Your task to perform on an android device: turn pop-ups off in chrome Image 0: 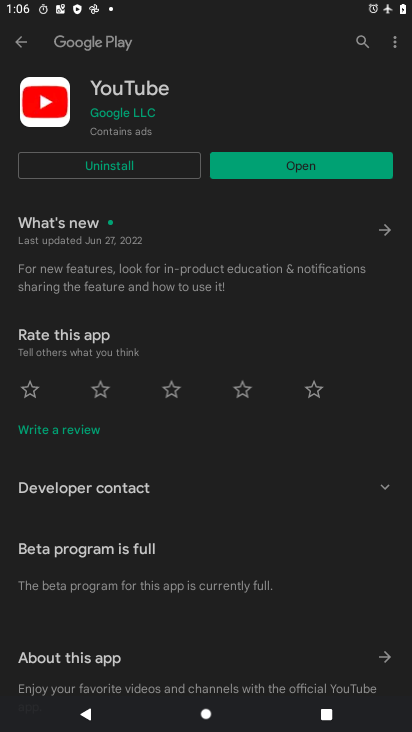
Step 0: press home button
Your task to perform on an android device: turn pop-ups off in chrome Image 1: 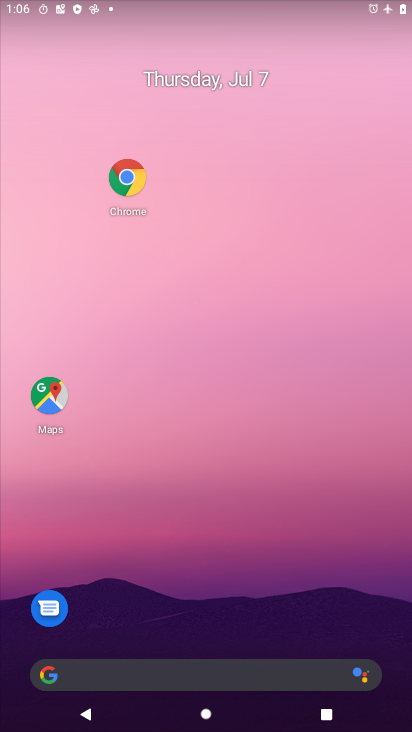
Step 1: drag from (152, 685) to (140, 345)
Your task to perform on an android device: turn pop-ups off in chrome Image 2: 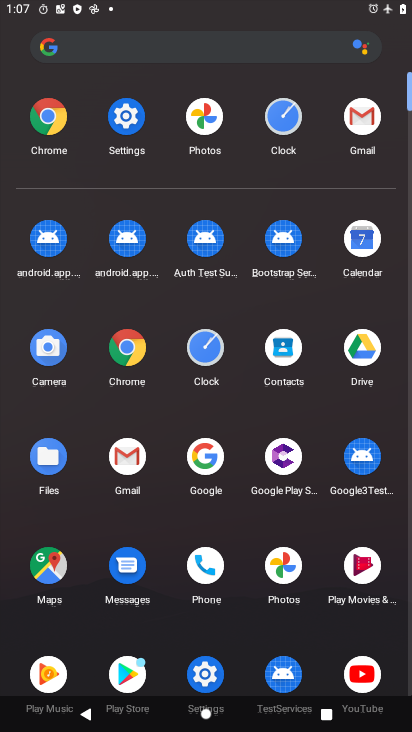
Step 2: click (36, 124)
Your task to perform on an android device: turn pop-ups off in chrome Image 3: 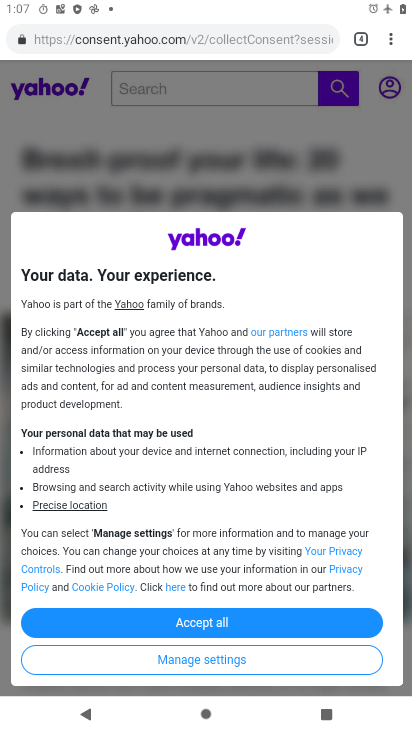
Step 3: click (384, 36)
Your task to perform on an android device: turn pop-ups off in chrome Image 4: 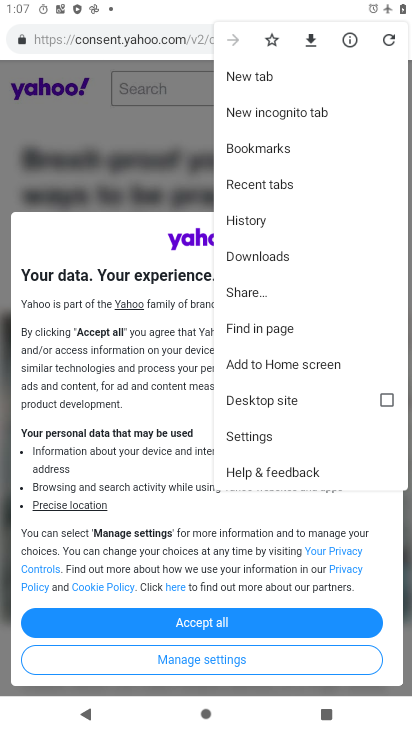
Step 4: click (239, 440)
Your task to perform on an android device: turn pop-ups off in chrome Image 5: 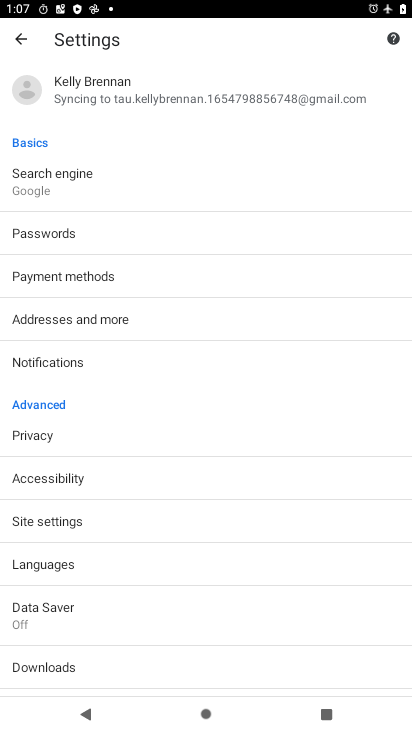
Step 5: drag from (71, 672) to (98, 318)
Your task to perform on an android device: turn pop-ups off in chrome Image 6: 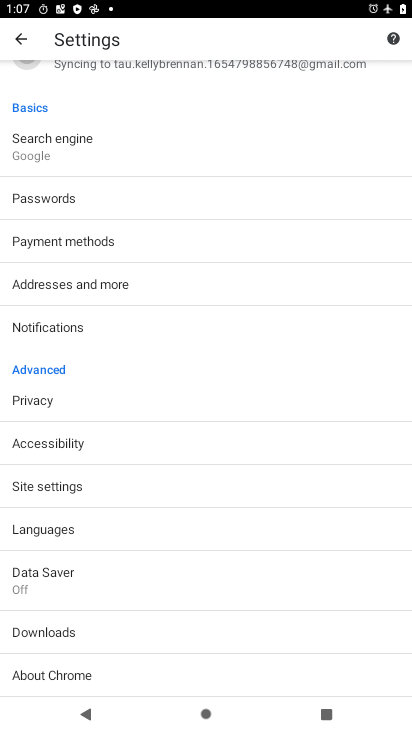
Step 6: drag from (46, 682) to (60, 350)
Your task to perform on an android device: turn pop-ups off in chrome Image 7: 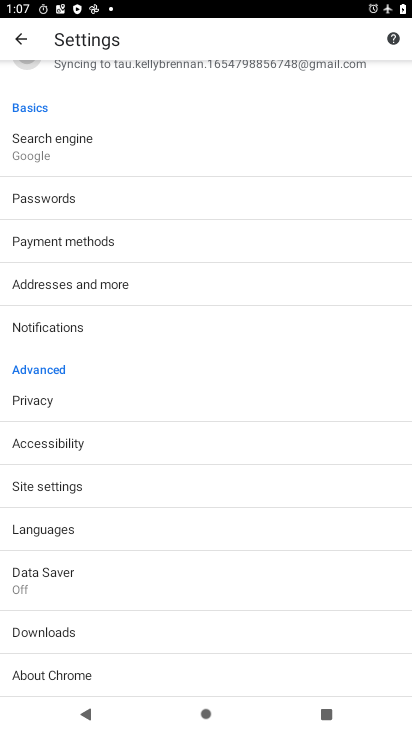
Step 7: click (40, 488)
Your task to perform on an android device: turn pop-ups off in chrome Image 8: 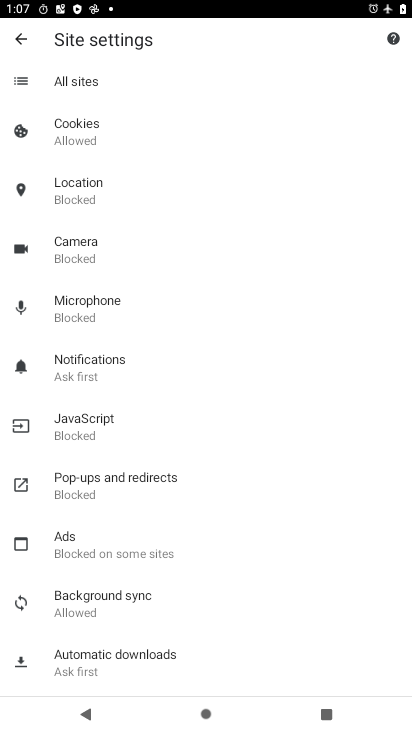
Step 8: click (51, 490)
Your task to perform on an android device: turn pop-ups off in chrome Image 9: 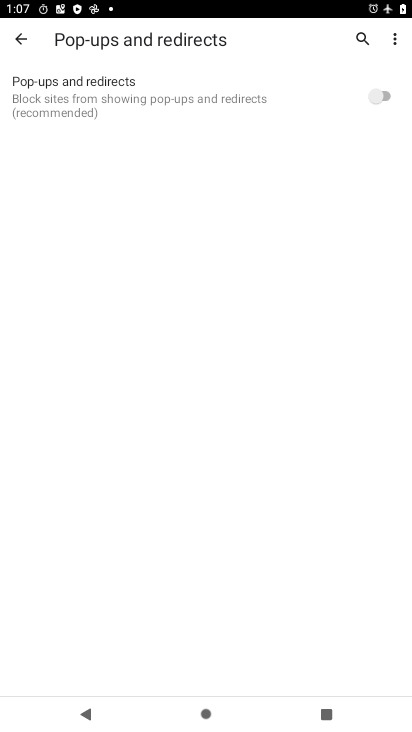
Step 9: task complete